Your task to perform on an android device: Search for seafood restaurants on Google Maps Image 0: 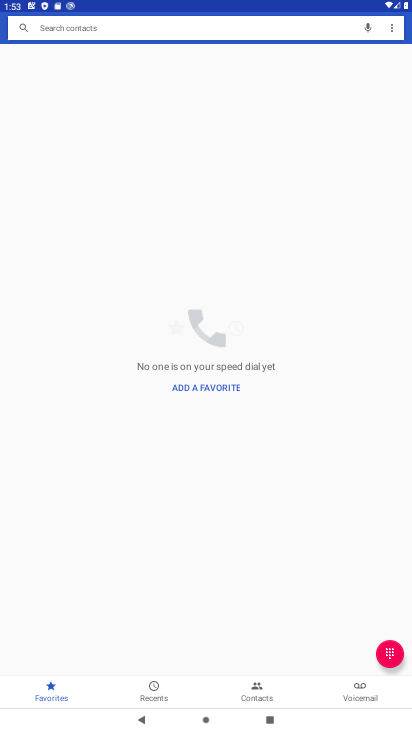
Step 0: press home button
Your task to perform on an android device: Search for seafood restaurants on Google Maps Image 1: 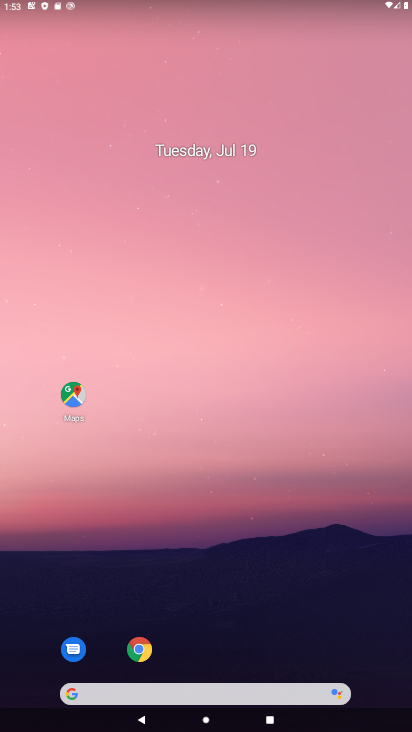
Step 1: click (70, 402)
Your task to perform on an android device: Search for seafood restaurants on Google Maps Image 2: 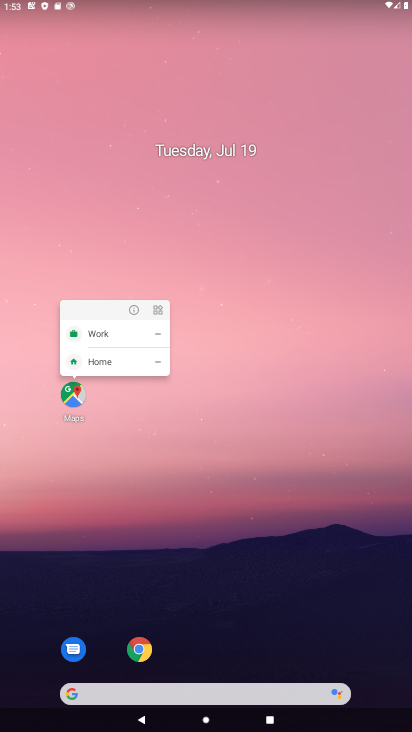
Step 2: click (70, 402)
Your task to perform on an android device: Search for seafood restaurants on Google Maps Image 3: 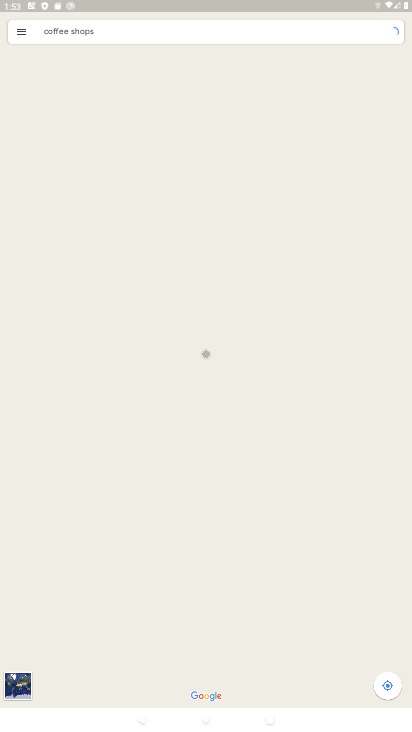
Step 3: click (281, 34)
Your task to perform on an android device: Search for seafood restaurants on Google Maps Image 4: 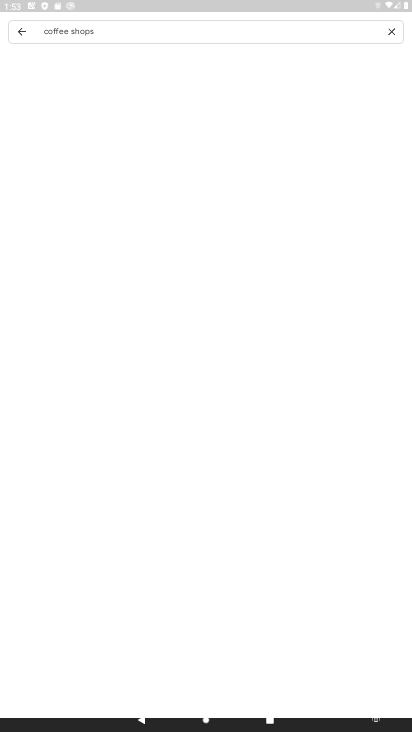
Step 4: click (388, 35)
Your task to perform on an android device: Search for seafood restaurants on Google Maps Image 5: 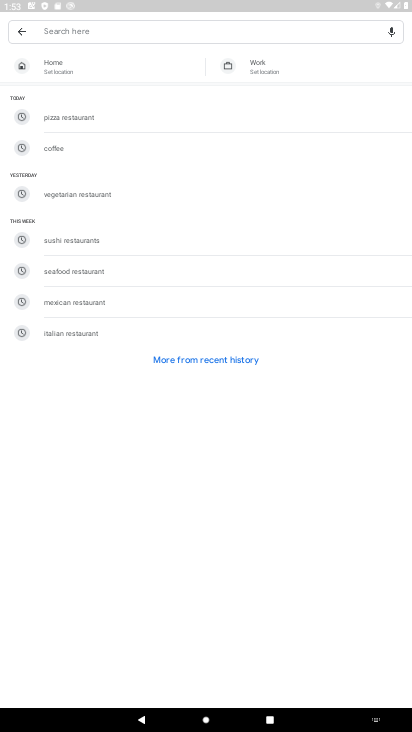
Step 5: type "seafood restaurants"
Your task to perform on an android device: Search for seafood restaurants on Google Maps Image 6: 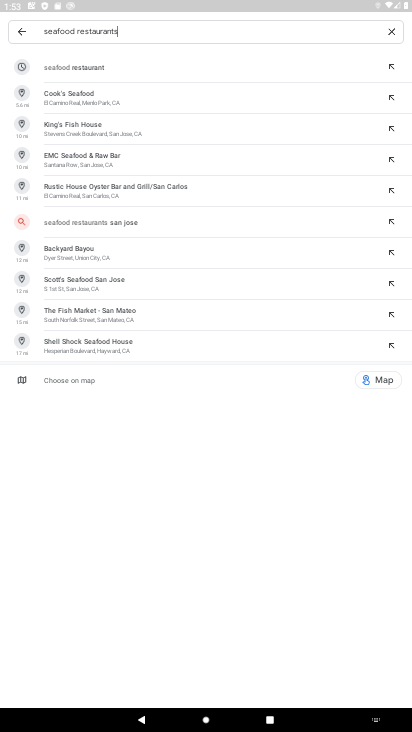
Step 6: click (133, 73)
Your task to perform on an android device: Search for seafood restaurants on Google Maps Image 7: 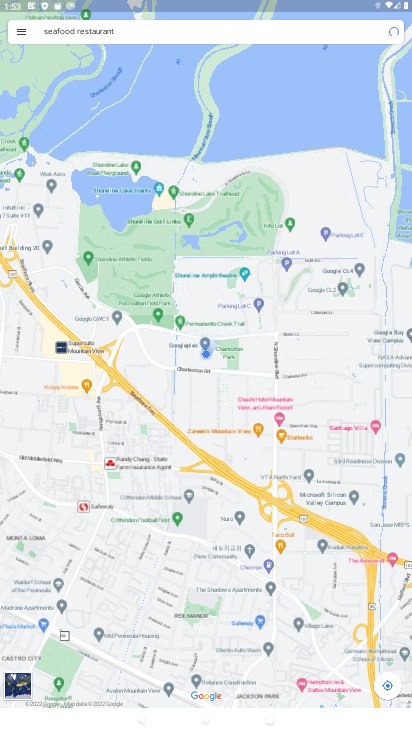
Step 7: task complete